Your task to perform on an android device: Open a new tab in the chrome app Image 0: 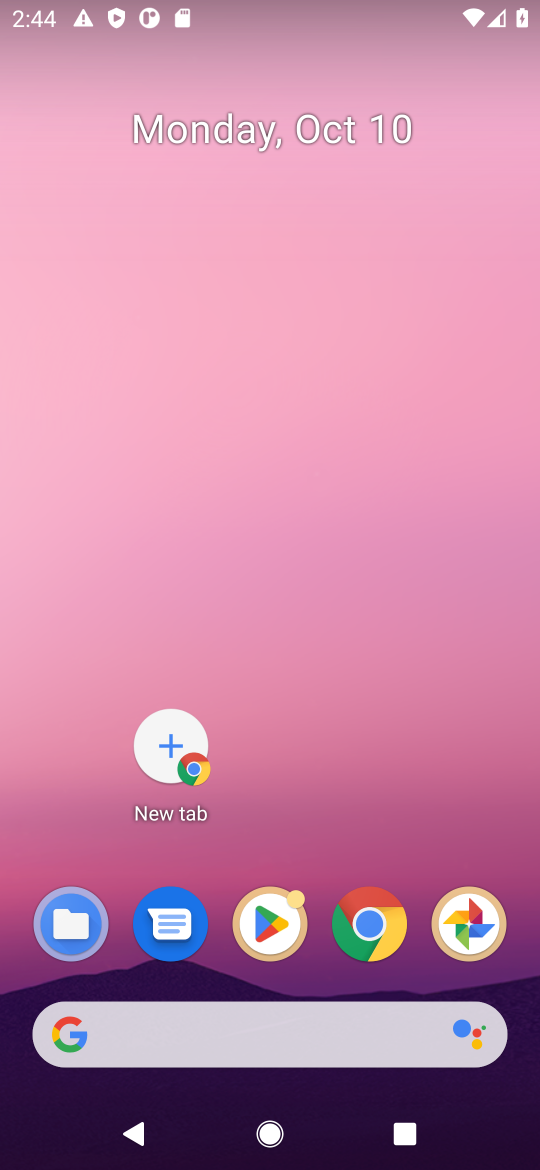
Step 0: click (381, 912)
Your task to perform on an android device: Open a new tab in the chrome app Image 1: 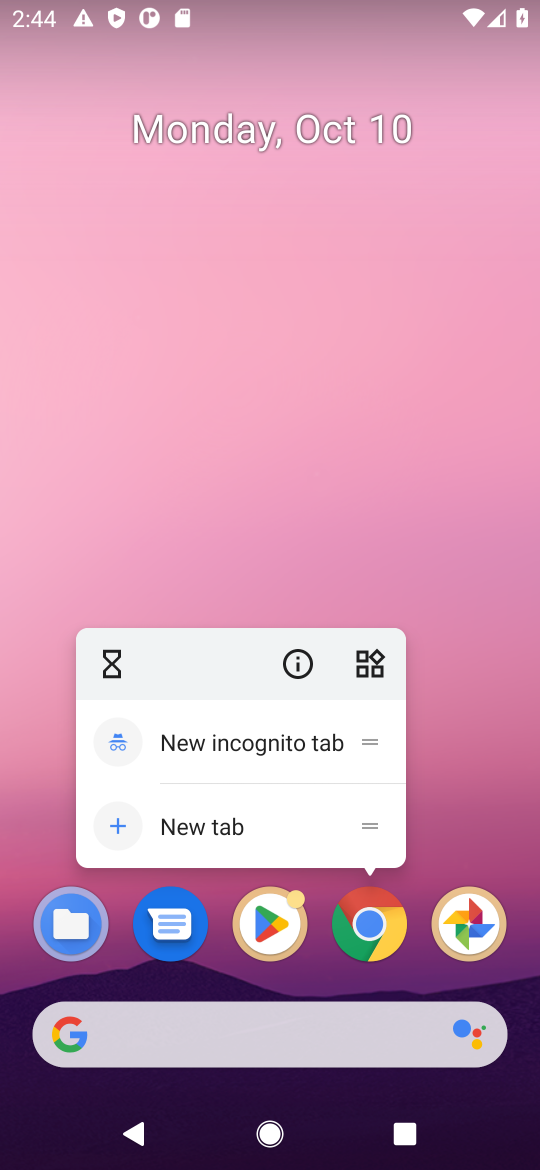
Step 1: click (227, 822)
Your task to perform on an android device: Open a new tab in the chrome app Image 2: 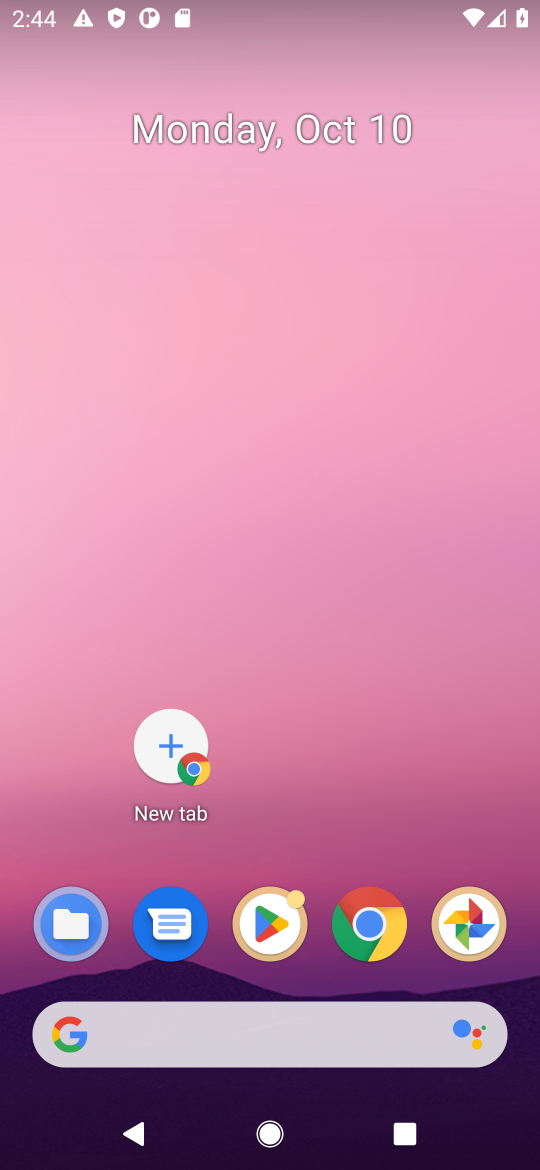
Step 2: click (387, 928)
Your task to perform on an android device: Open a new tab in the chrome app Image 3: 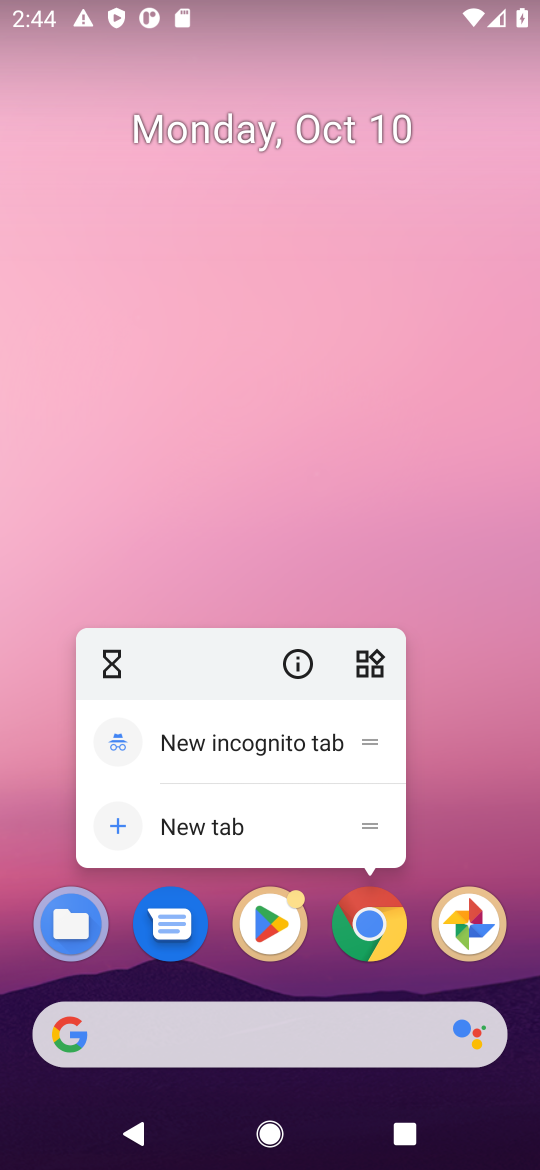
Step 3: click (170, 825)
Your task to perform on an android device: Open a new tab in the chrome app Image 4: 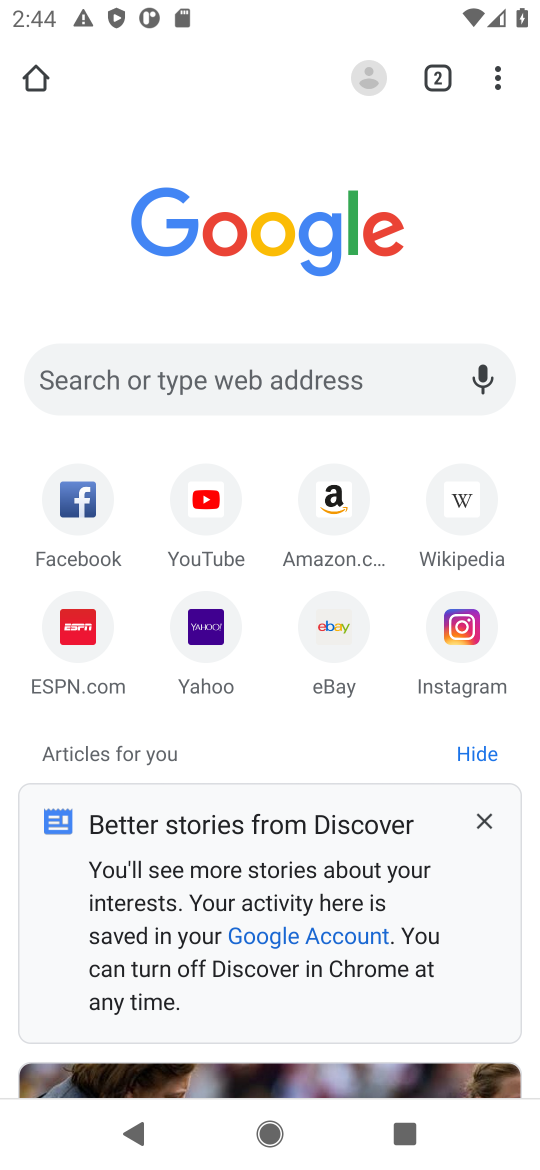
Step 4: click (433, 83)
Your task to perform on an android device: Open a new tab in the chrome app Image 5: 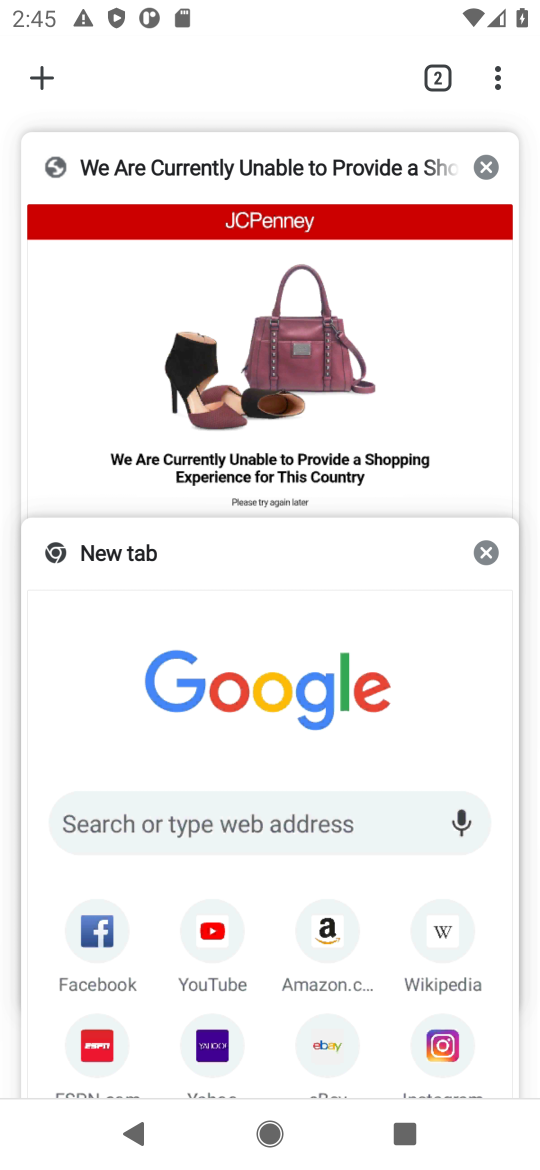
Step 5: click (474, 166)
Your task to perform on an android device: Open a new tab in the chrome app Image 6: 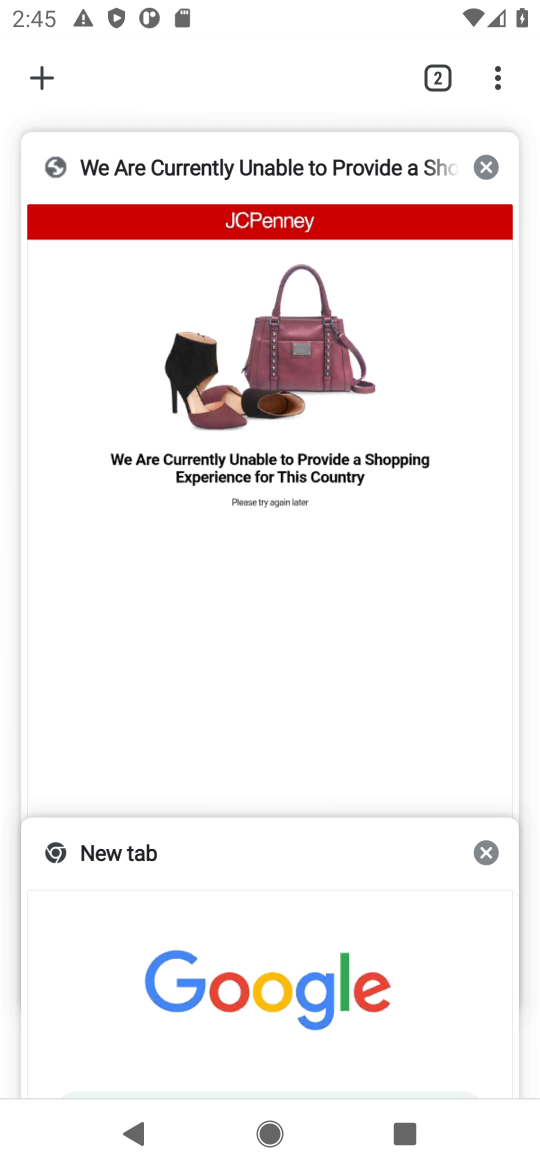
Step 6: click (492, 163)
Your task to perform on an android device: Open a new tab in the chrome app Image 7: 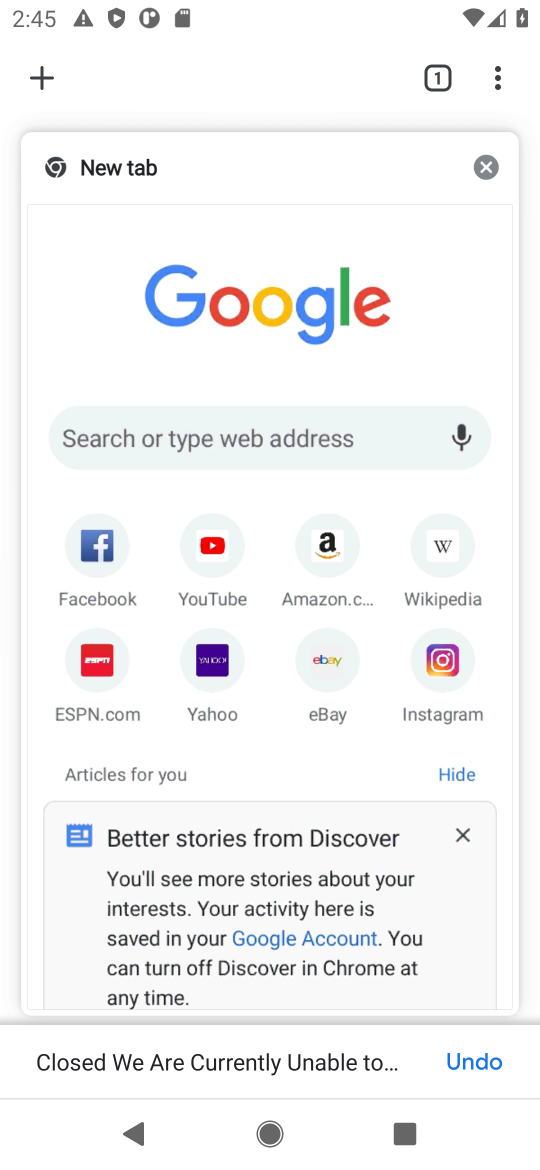
Step 7: click (289, 252)
Your task to perform on an android device: Open a new tab in the chrome app Image 8: 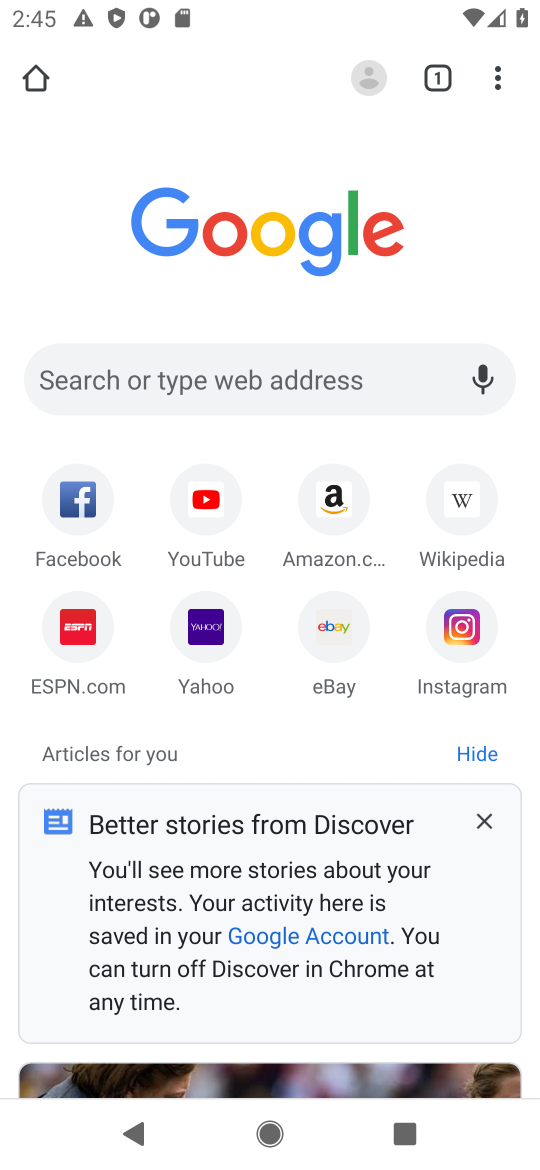
Step 8: task complete